Your task to perform on an android device: Do I have any events today? Image 0: 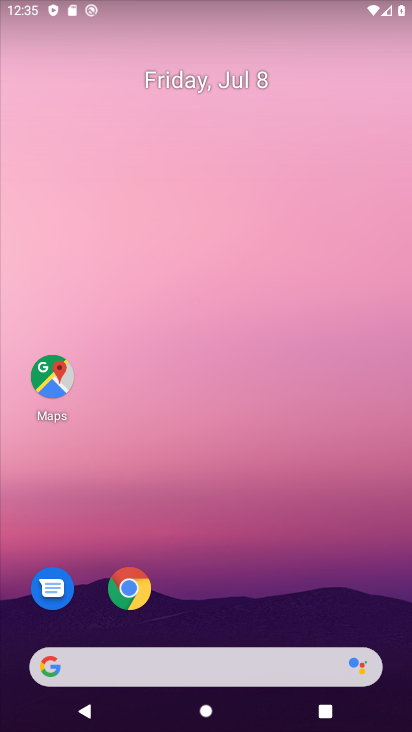
Step 0: drag from (250, 614) to (333, 5)
Your task to perform on an android device: Do I have any events today? Image 1: 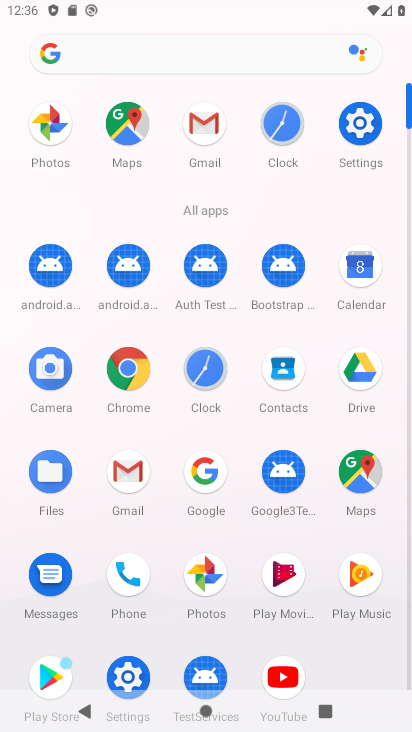
Step 1: click (363, 262)
Your task to perform on an android device: Do I have any events today? Image 2: 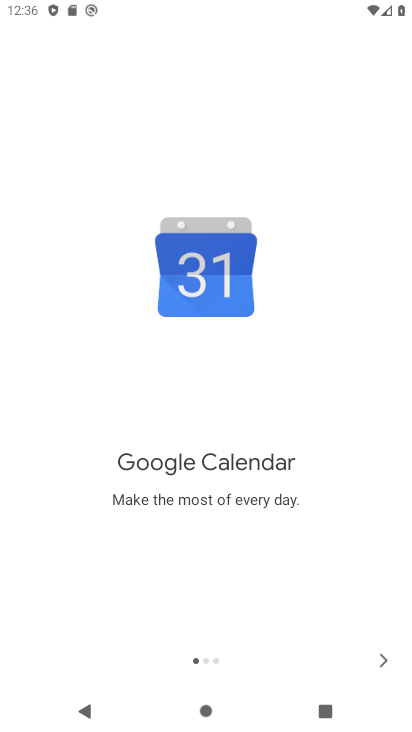
Step 2: click (388, 655)
Your task to perform on an android device: Do I have any events today? Image 3: 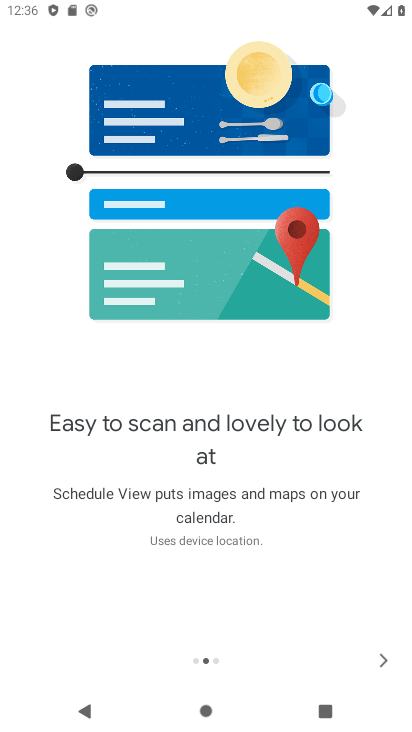
Step 3: click (383, 659)
Your task to perform on an android device: Do I have any events today? Image 4: 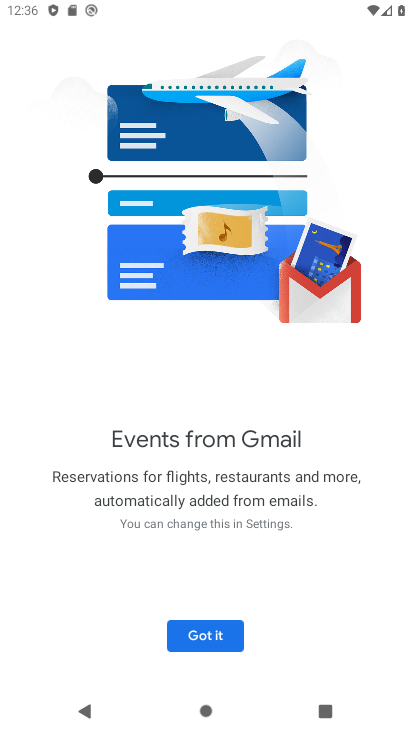
Step 4: click (220, 633)
Your task to perform on an android device: Do I have any events today? Image 5: 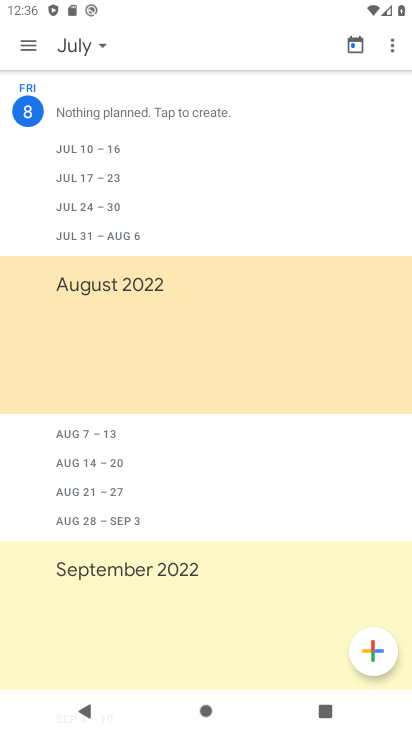
Step 5: click (35, 38)
Your task to perform on an android device: Do I have any events today? Image 6: 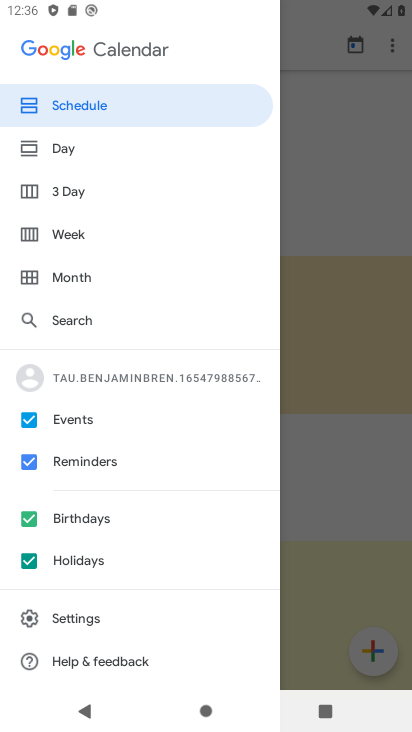
Step 6: click (89, 469)
Your task to perform on an android device: Do I have any events today? Image 7: 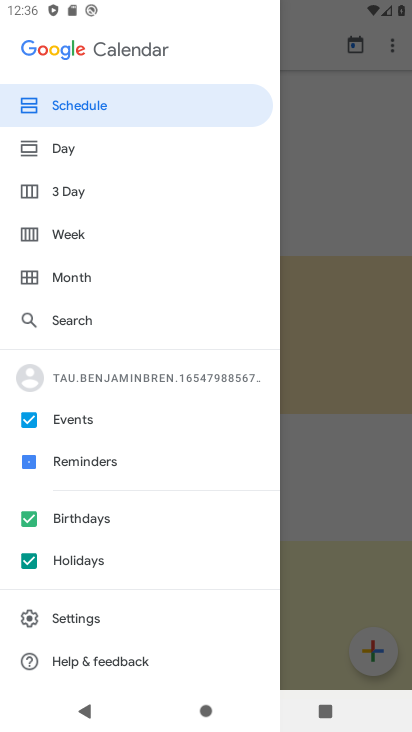
Step 7: click (91, 533)
Your task to perform on an android device: Do I have any events today? Image 8: 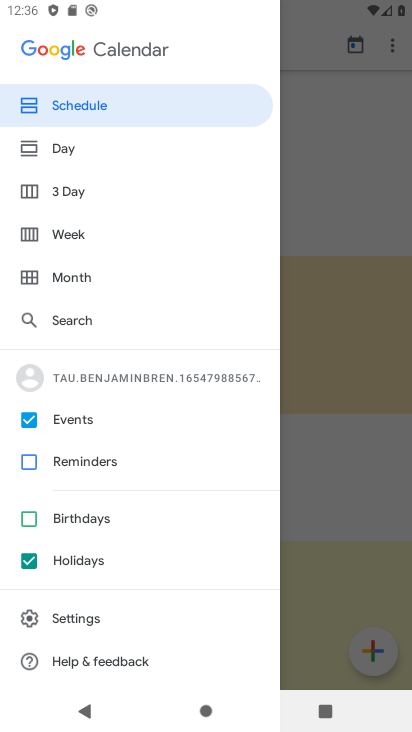
Step 8: click (91, 557)
Your task to perform on an android device: Do I have any events today? Image 9: 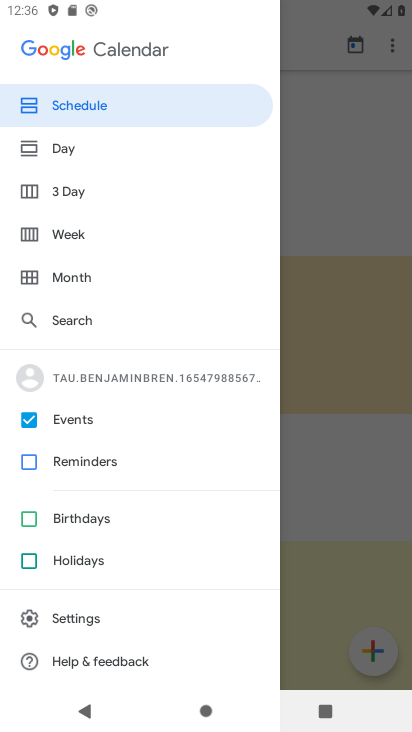
Step 9: click (75, 151)
Your task to perform on an android device: Do I have any events today? Image 10: 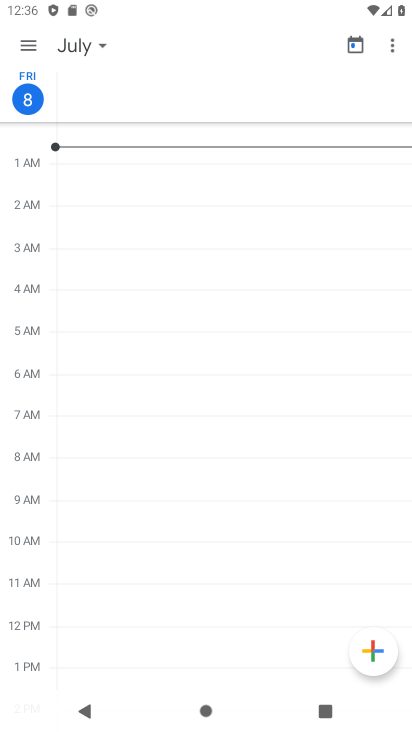
Step 10: task complete